Your task to perform on an android device: Open location settings Image 0: 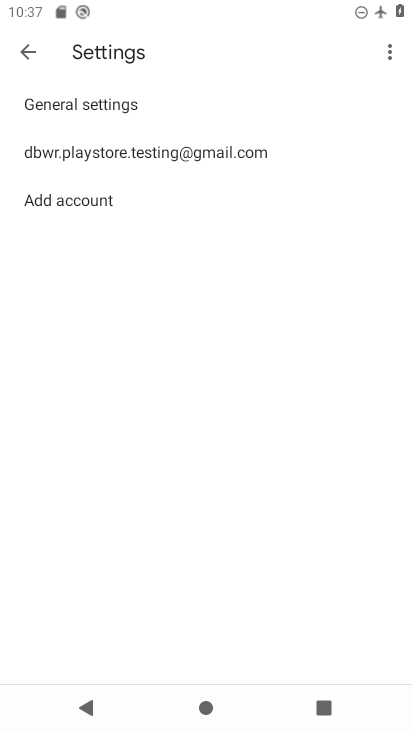
Step 0: press home button
Your task to perform on an android device: Open location settings Image 1: 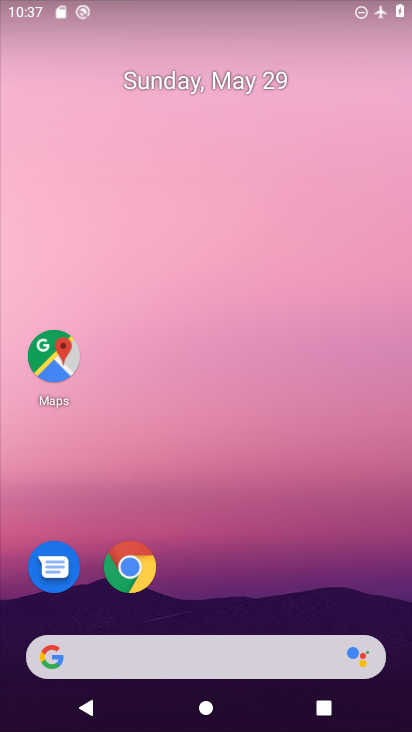
Step 1: drag from (396, 618) to (310, 79)
Your task to perform on an android device: Open location settings Image 2: 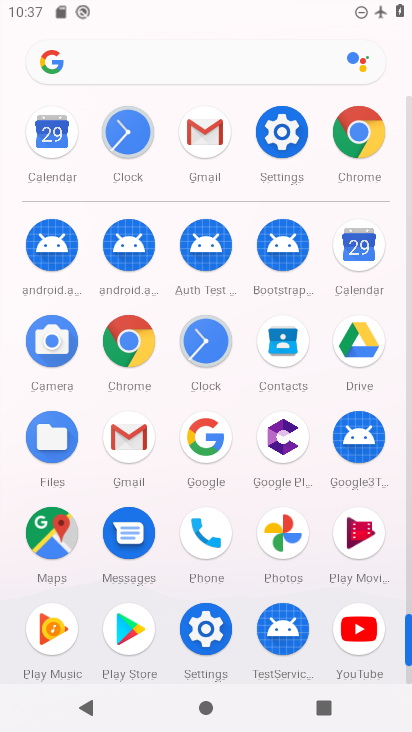
Step 2: click (208, 628)
Your task to perform on an android device: Open location settings Image 3: 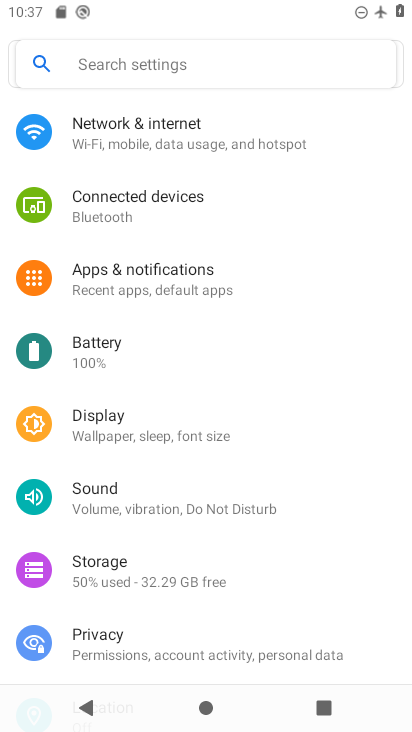
Step 3: drag from (315, 592) to (282, 183)
Your task to perform on an android device: Open location settings Image 4: 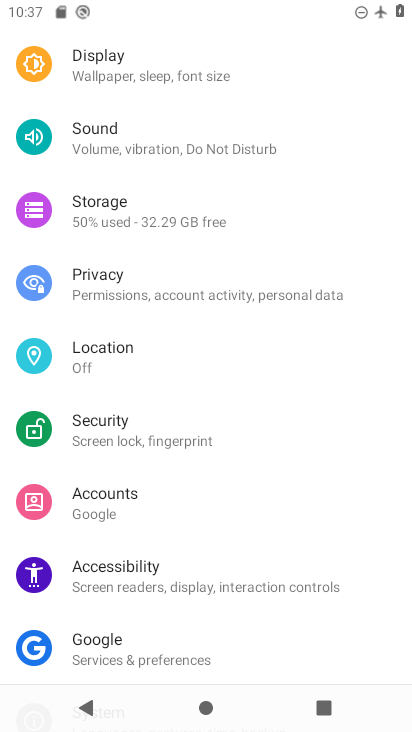
Step 4: click (97, 356)
Your task to perform on an android device: Open location settings Image 5: 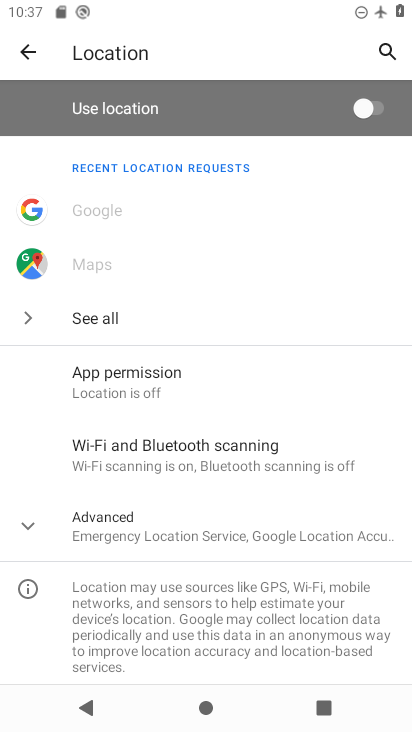
Step 5: click (32, 522)
Your task to perform on an android device: Open location settings Image 6: 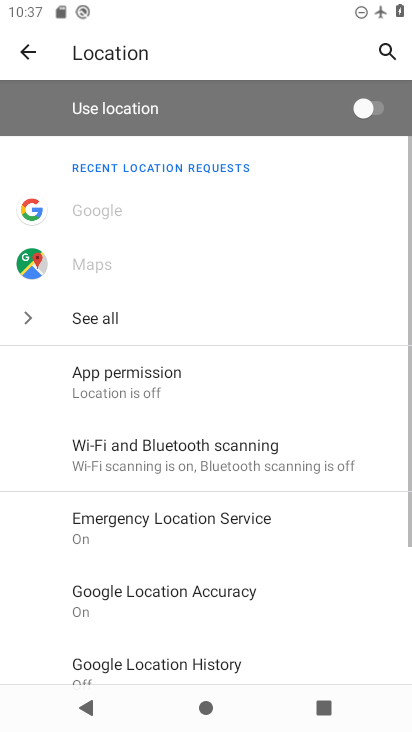
Step 6: task complete